Your task to perform on an android device: Open the calendar app, open the side menu, and click the "Day" option Image 0: 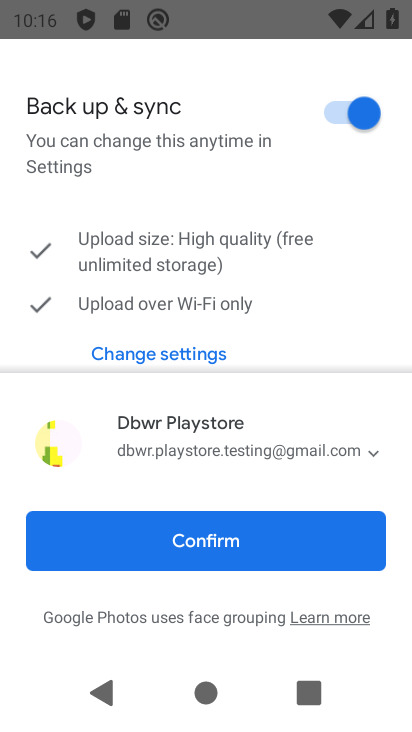
Step 0: press home button
Your task to perform on an android device: Open the calendar app, open the side menu, and click the "Day" option Image 1: 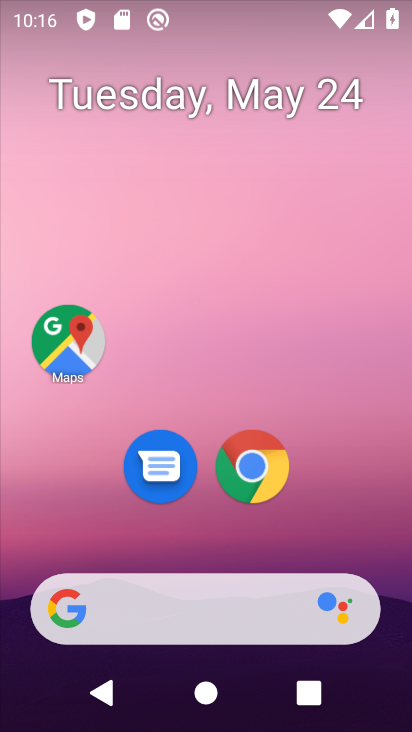
Step 1: drag from (390, 555) to (393, 120)
Your task to perform on an android device: Open the calendar app, open the side menu, and click the "Day" option Image 2: 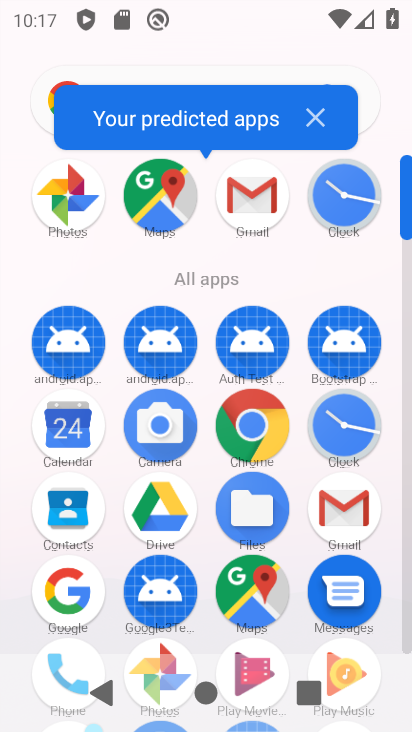
Step 2: click (75, 433)
Your task to perform on an android device: Open the calendar app, open the side menu, and click the "Day" option Image 3: 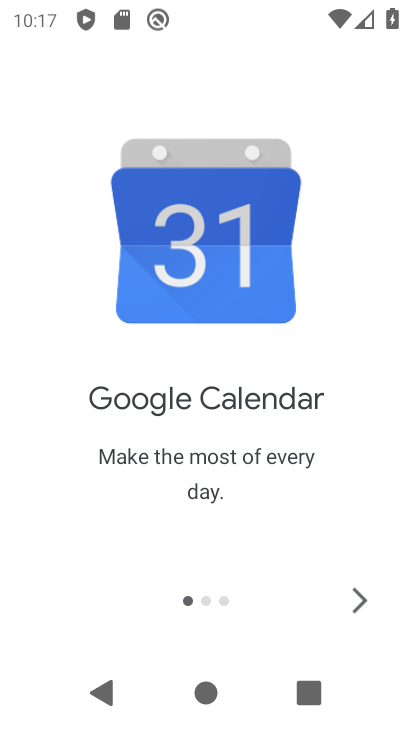
Step 3: click (360, 598)
Your task to perform on an android device: Open the calendar app, open the side menu, and click the "Day" option Image 4: 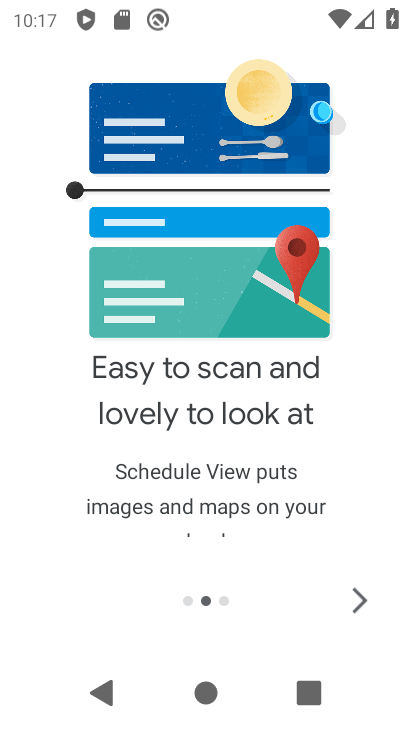
Step 4: click (360, 597)
Your task to perform on an android device: Open the calendar app, open the side menu, and click the "Day" option Image 5: 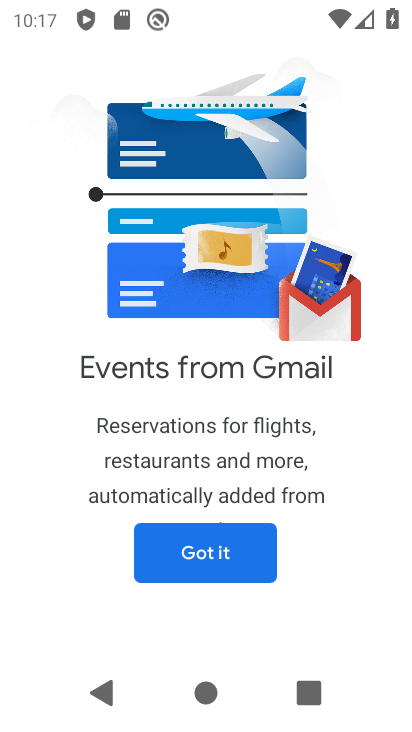
Step 5: click (197, 570)
Your task to perform on an android device: Open the calendar app, open the side menu, and click the "Day" option Image 6: 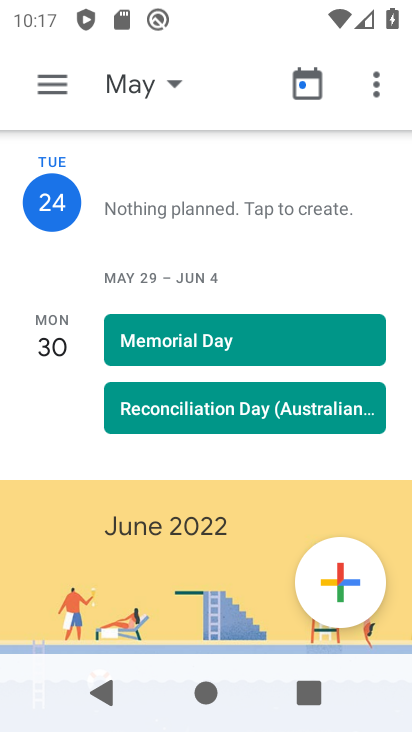
Step 6: click (52, 80)
Your task to perform on an android device: Open the calendar app, open the side menu, and click the "Day" option Image 7: 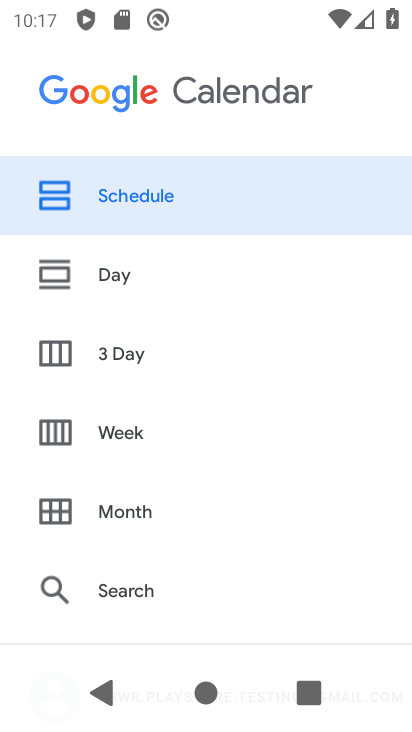
Step 7: click (131, 272)
Your task to perform on an android device: Open the calendar app, open the side menu, and click the "Day" option Image 8: 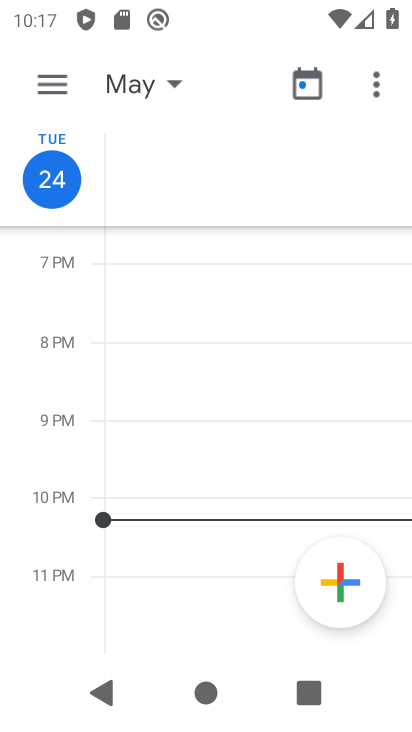
Step 8: task complete